Your task to perform on an android device: search for starred emails in the gmail app Image 0: 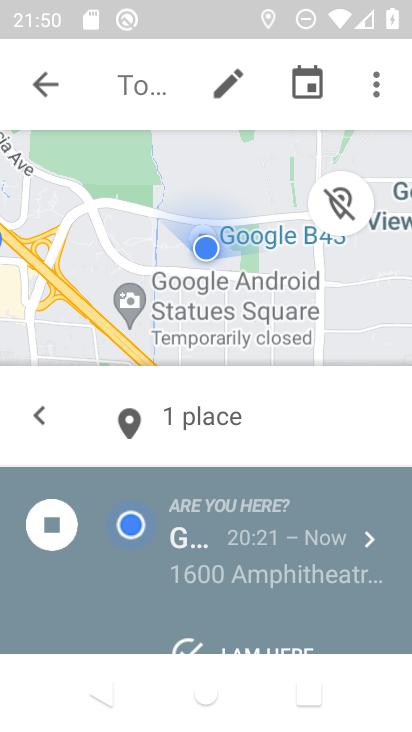
Step 0: press home button
Your task to perform on an android device: search for starred emails in the gmail app Image 1: 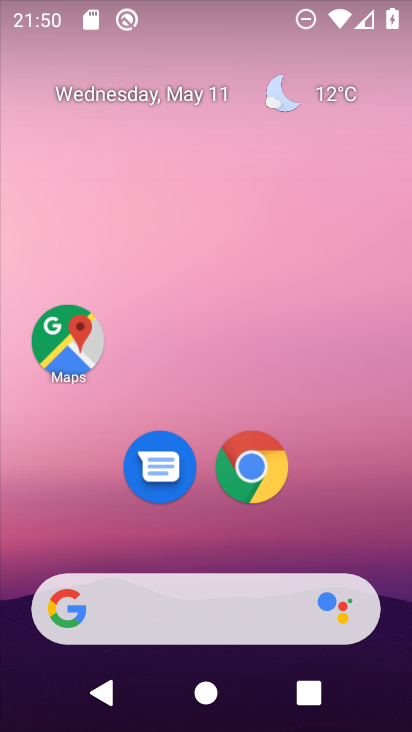
Step 1: drag from (218, 533) to (237, 74)
Your task to perform on an android device: search for starred emails in the gmail app Image 2: 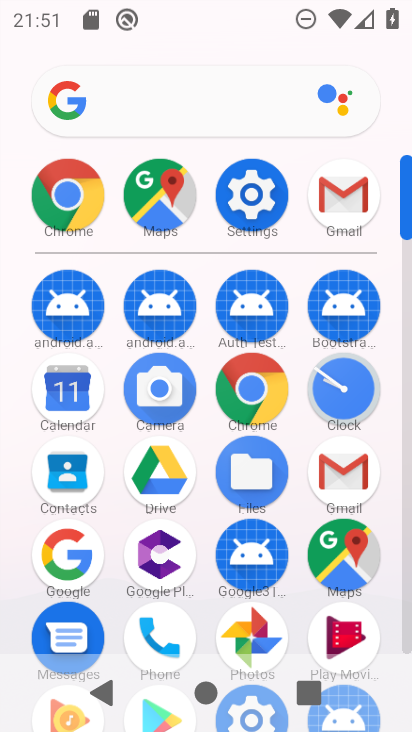
Step 2: click (331, 461)
Your task to perform on an android device: search for starred emails in the gmail app Image 3: 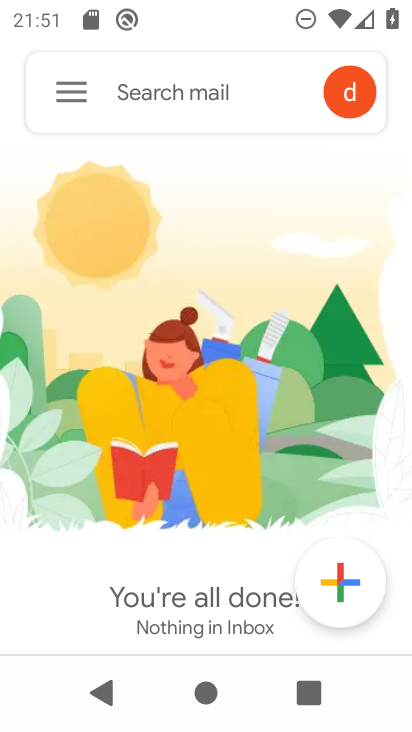
Step 3: click (57, 95)
Your task to perform on an android device: search for starred emails in the gmail app Image 4: 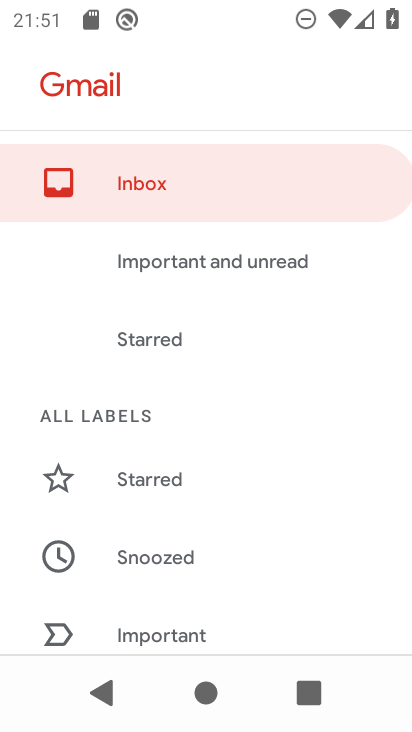
Step 4: click (164, 472)
Your task to perform on an android device: search for starred emails in the gmail app Image 5: 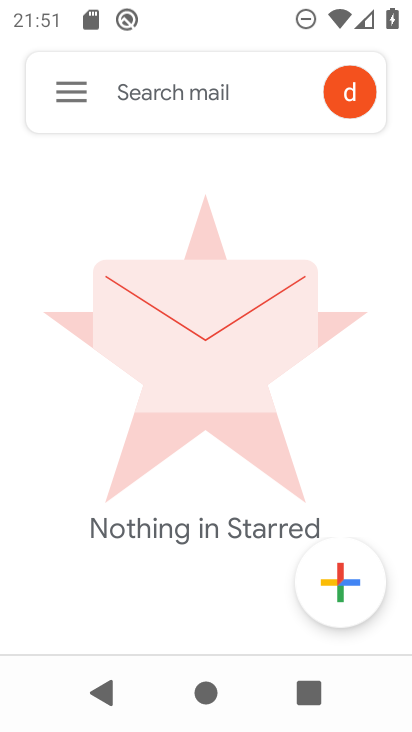
Step 5: task complete